Your task to perform on an android device: Show me the alarms in the clock app Image 0: 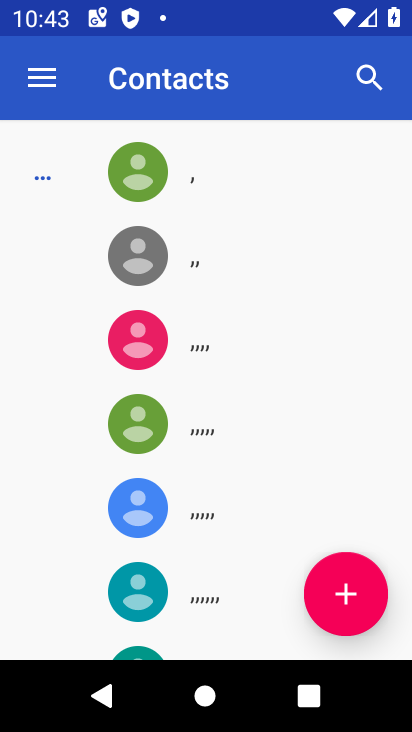
Step 0: press home button
Your task to perform on an android device: Show me the alarms in the clock app Image 1: 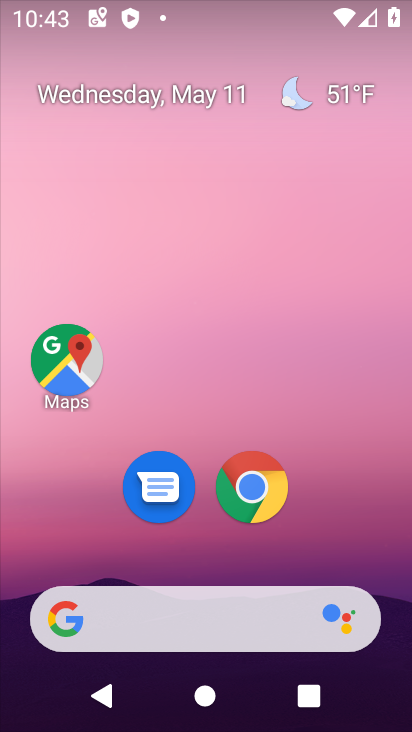
Step 1: drag from (344, 570) to (353, 170)
Your task to perform on an android device: Show me the alarms in the clock app Image 2: 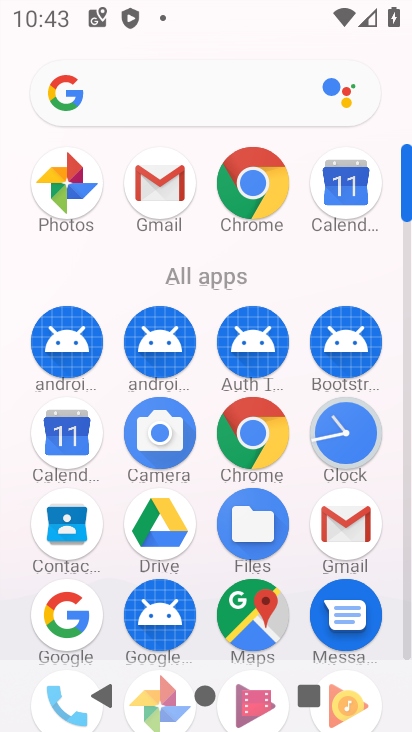
Step 2: click (366, 445)
Your task to perform on an android device: Show me the alarms in the clock app Image 3: 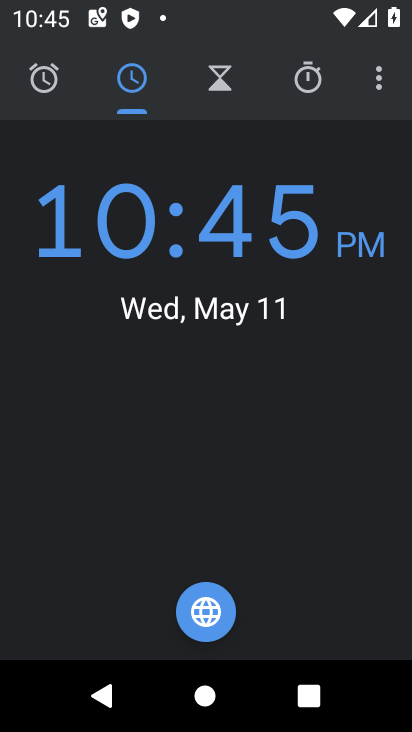
Step 3: click (52, 88)
Your task to perform on an android device: Show me the alarms in the clock app Image 4: 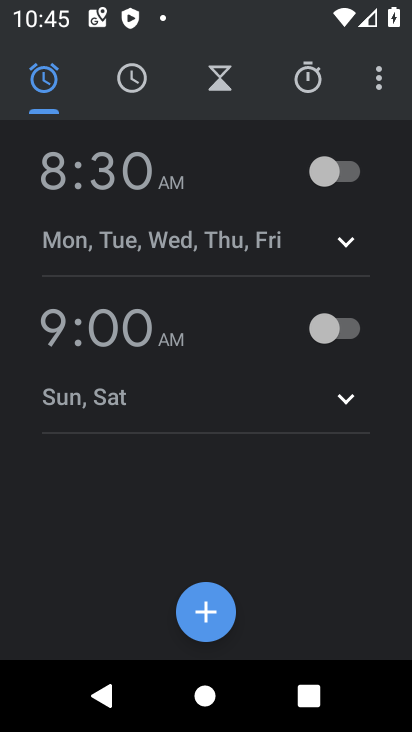
Step 4: task complete